Your task to perform on an android device: Search for sushi restaurants on Maps Image 0: 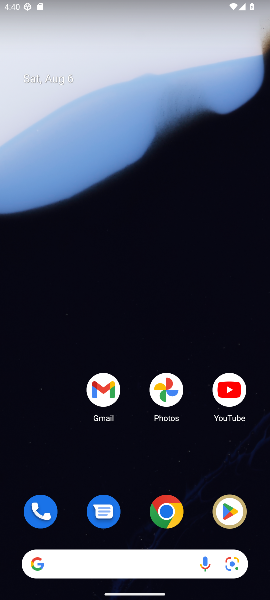
Step 0: drag from (136, 447) to (146, 36)
Your task to perform on an android device: Search for sushi restaurants on Maps Image 1: 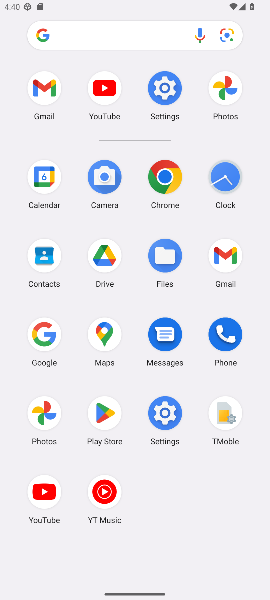
Step 1: click (106, 342)
Your task to perform on an android device: Search for sushi restaurants on Maps Image 2: 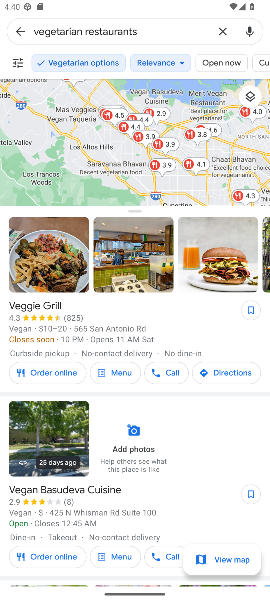
Step 2: click (50, 32)
Your task to perform on an android device: Search for sushi restaurants on Maps Image 3: 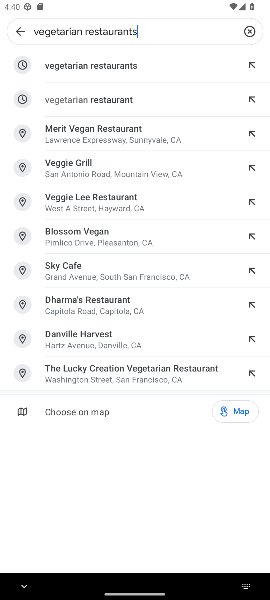
Step 3: click (57, 32)
Your task to perform on an android device: Search for sushi restaurants on Maps Image 4: 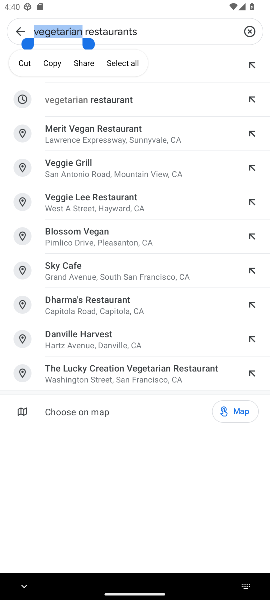
Step 4: type "Sushi "
Your task to perform on an android device: Search for sushi restaurants on Maps Image 5: 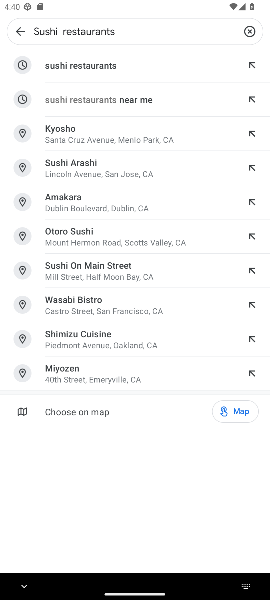
Step 5: click (111, 71)
Your task to perform on an android device: Search for sushi restaurants on Maps Image 6: 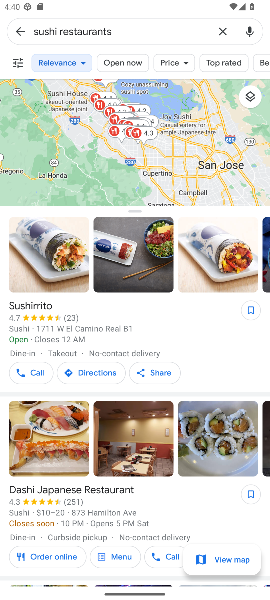
Step 6: task complete